Your task to perform on an android device: Search for the new Apple Watch on Best Buy Image 0: 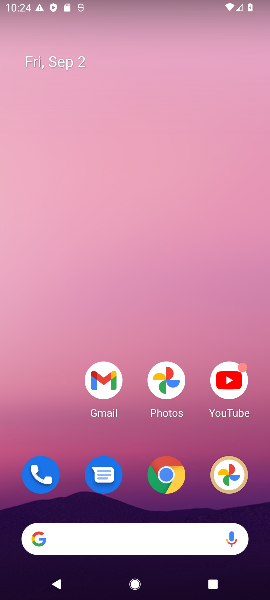
Step 0: click (162, 476)
Your task to perform on an android device: Search for the new Apple Watch on Best Buy Image 1: 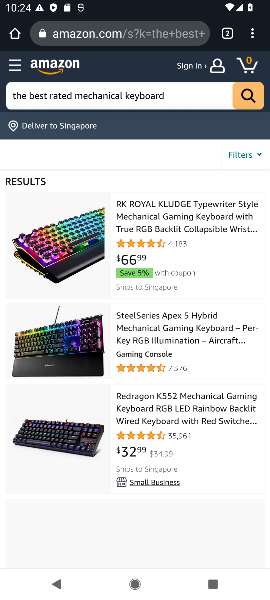
Step 1: click (173, 32)
Your task to perform on an android device: Search for the new Apple Watch on Best Buy Image 2: 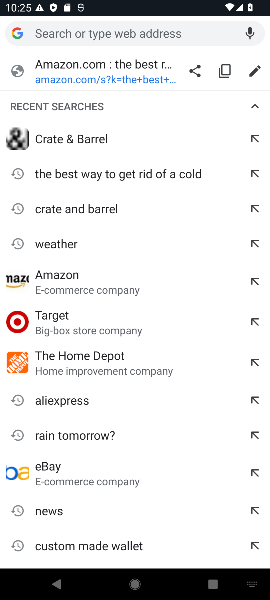
Step 2: type "best buy"
Your task to perform on an android device: Search for the new Apple Watch on Best Buy Image 3: 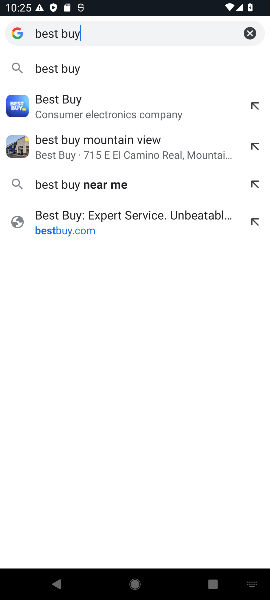
Step 3: click (80, 73)
Your task to perform on an android device: Search for the new Apple Watch on Best Buy Image 4: 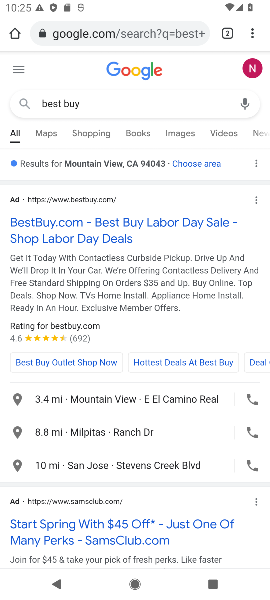
Step 4: click (73, 222)
Your task to perform on an android device: Search for the new Apple Watch on Best Buy Image 5: 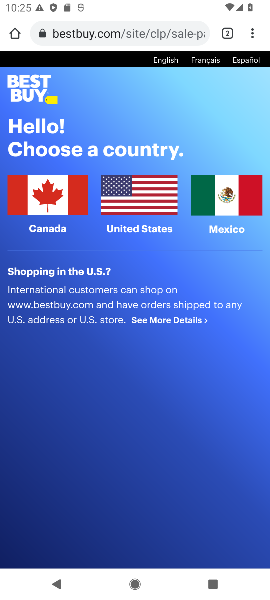
Step 5: click (134, 210)
Your task to perform on an android device: Search for the new Apple Watch on Best Buy Image 6: 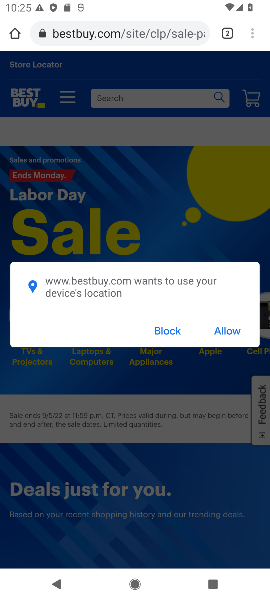
Step 6: click (237, 331)
Your task to perform on an android device: Search for the new Apple Watch on Best Buy Image 7: 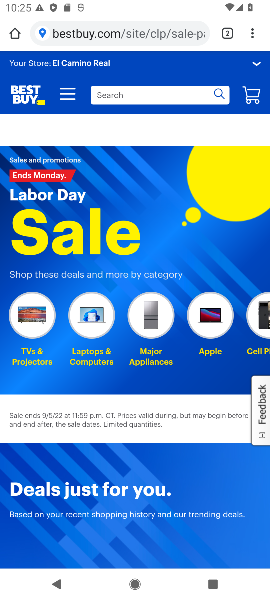
Step 7: click (144, 96)
Your task to perform on an android device: Search for the new Apple Watch on Best Buy Image 8: 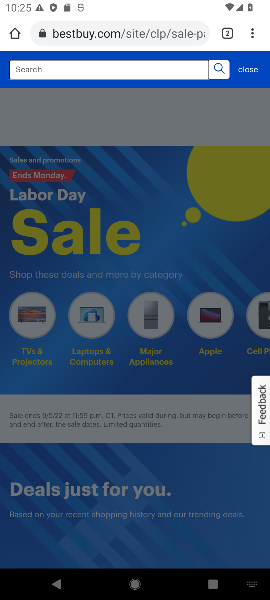
Step 8: type "new apple watch"
Your task to perform on an android device: Search for the new Apple Watch on Best Buy Image 9: 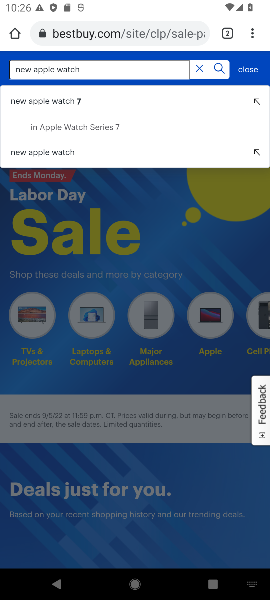
Step 9: click (219, 67)
Your task to perform on an android device: Search for the new Apple Watch on Best Buy Image 10: 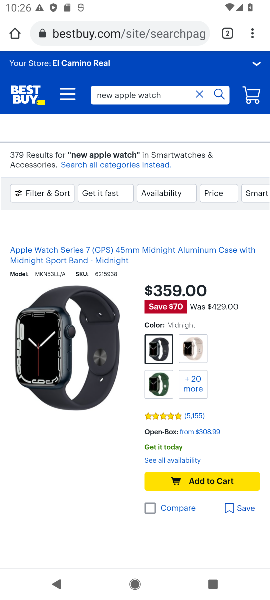
Step 10: task complete